Your task to perform on an android device: Open the contacts Image 0: 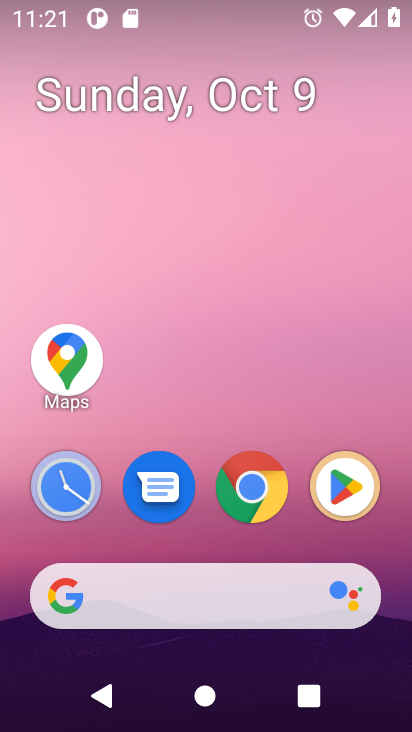
Step 0: drag from (220, 550) to (201, 53)
Your task to perform on an android device: Open the contacts Image 1: 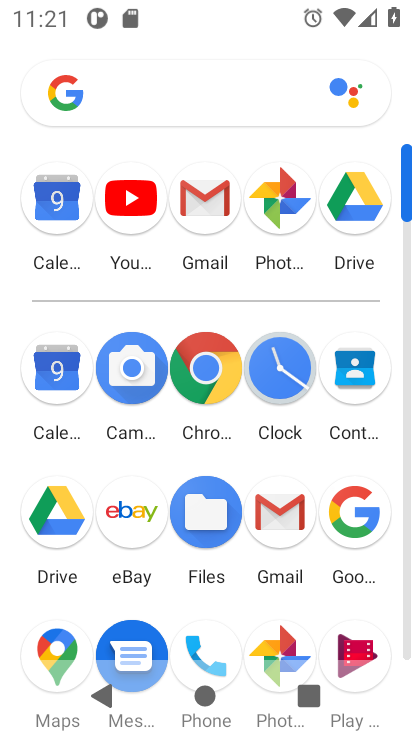
Step 1: click (345, 359)
Your task to perform on an android device: Open the contacts Image 2: 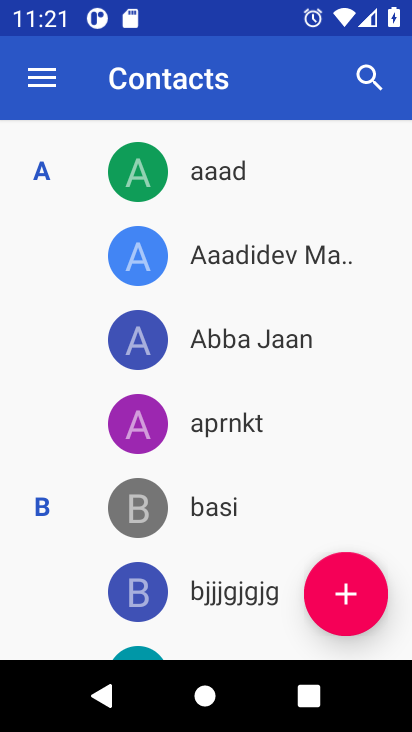
Step 2: task complete